Your task to perform on an android device: Search for razer blackwidow on bestbuy, select the first entry, add it to the cart, then select checkout. Image 0: 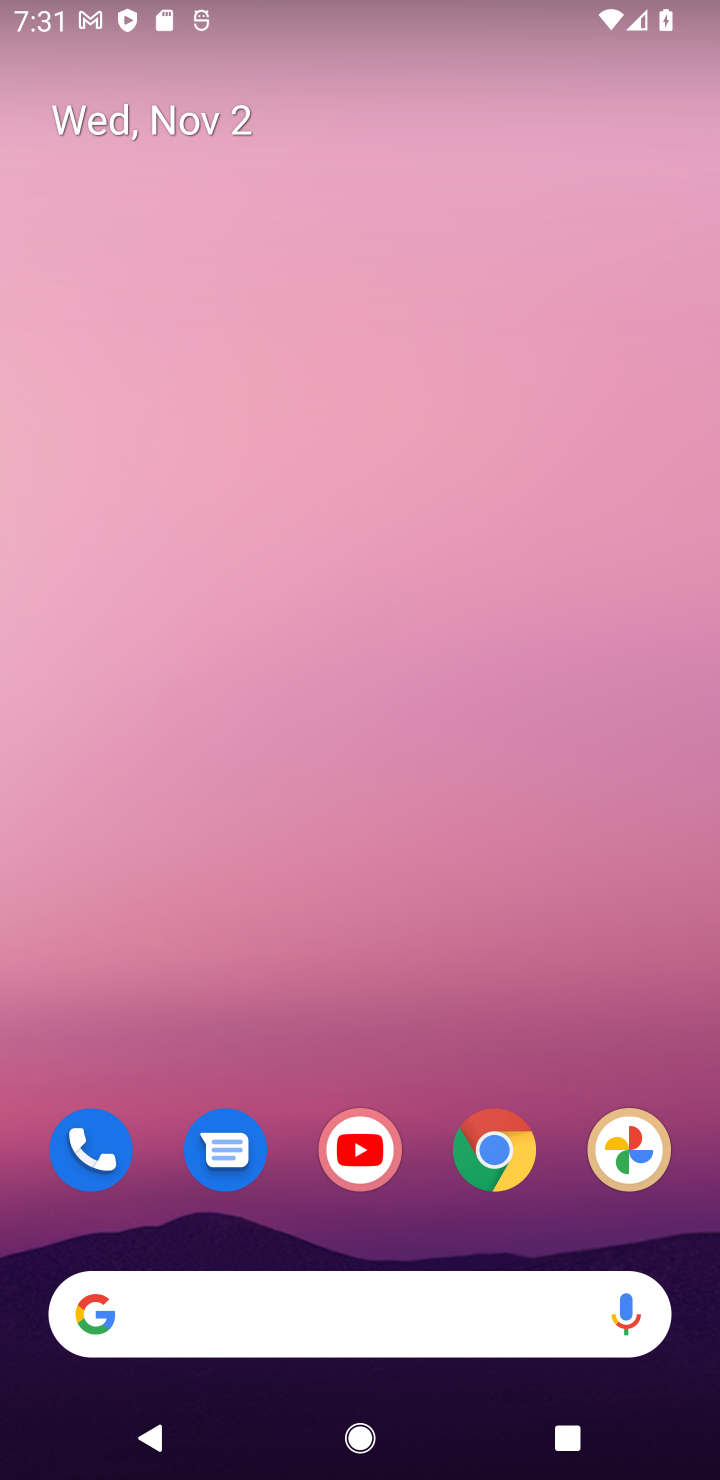
Step 0: click (507, 1167)
Your task to perform on an android device: Search for razer blackwidow on bestbuy, select the first entry, add it to the cart, then select checkout. Image 1: 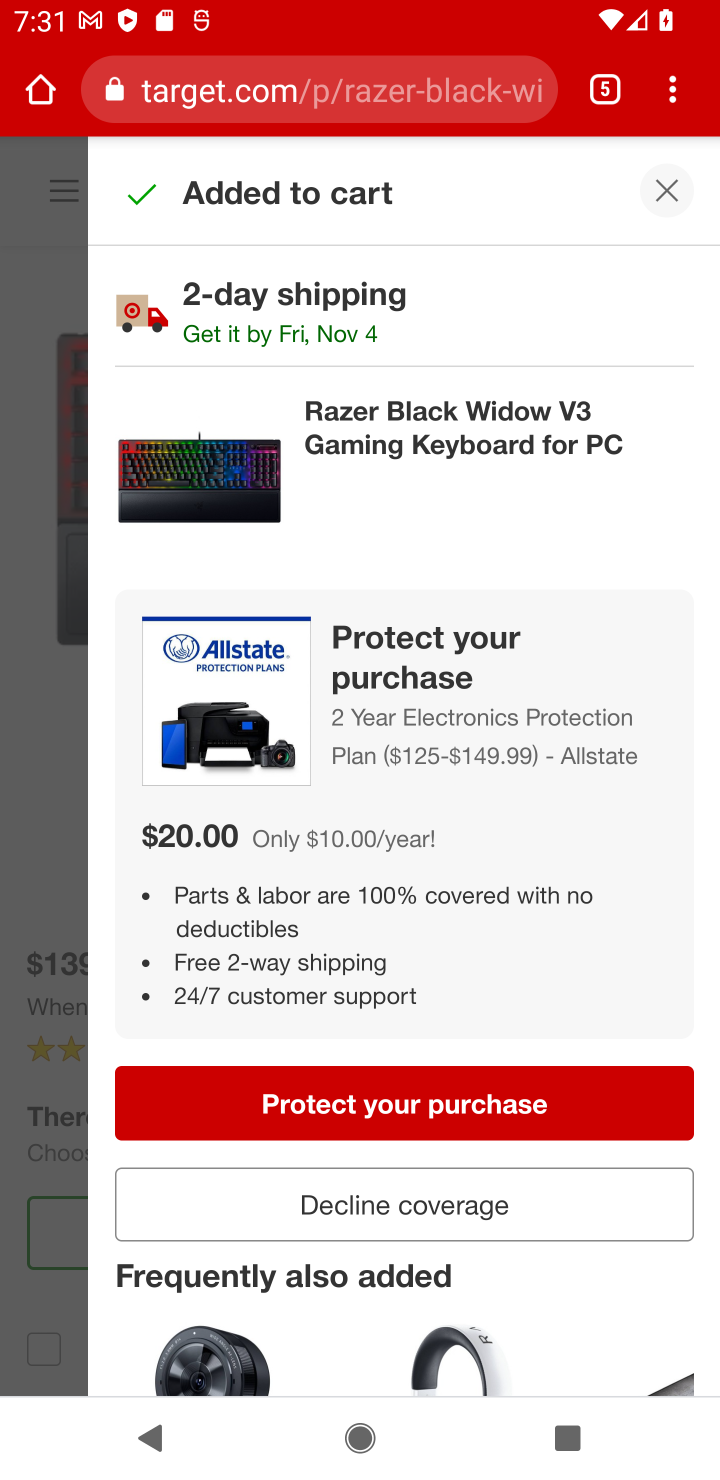
Step 1: click (599, 105)
Your task to perform on an android device: Search for razer blackwidow on bestbuy, select the first entry, add it to the cart, then select checkout. Image 2: 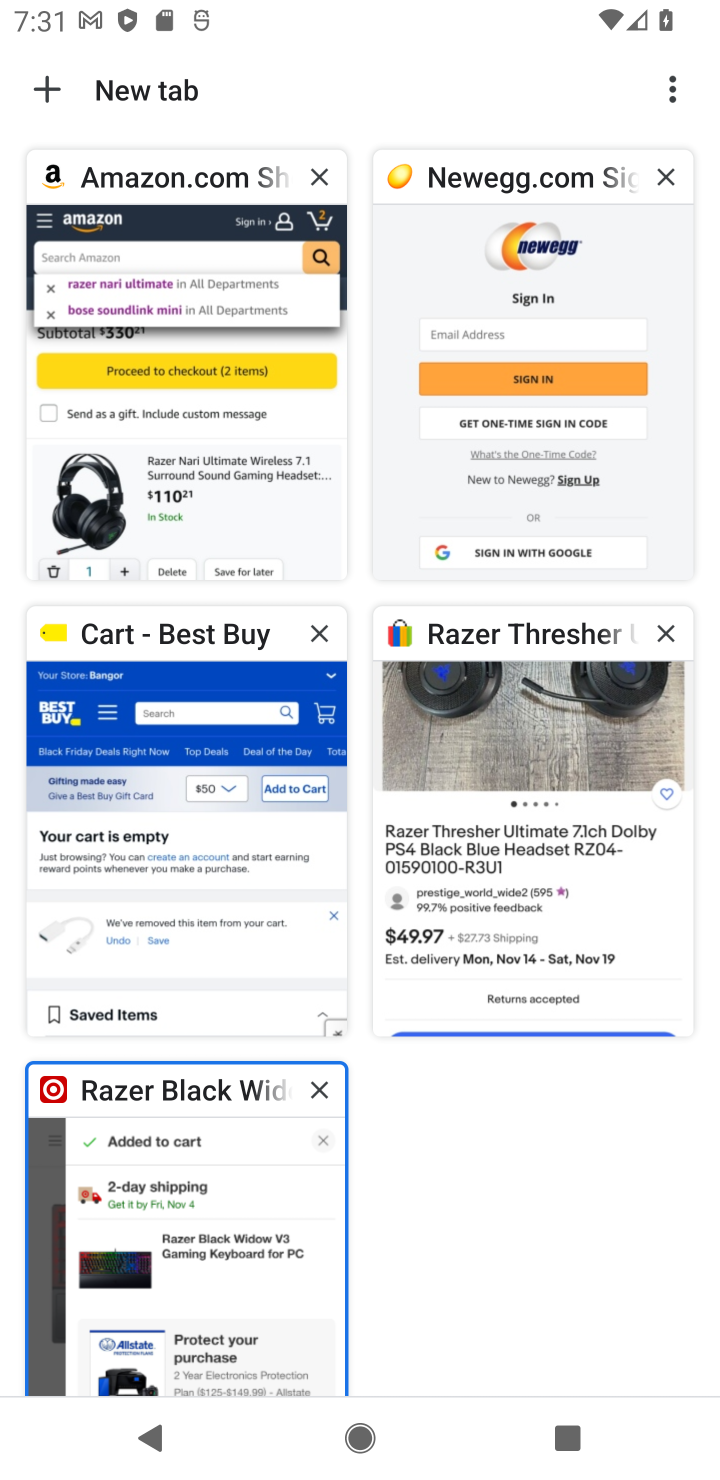
Step 2: click (165, 762)
Your task to perform on an android device: Search for razer blackwidow on bestbuy, select the first entry, add it to the cart, then select checkout. Image 3: 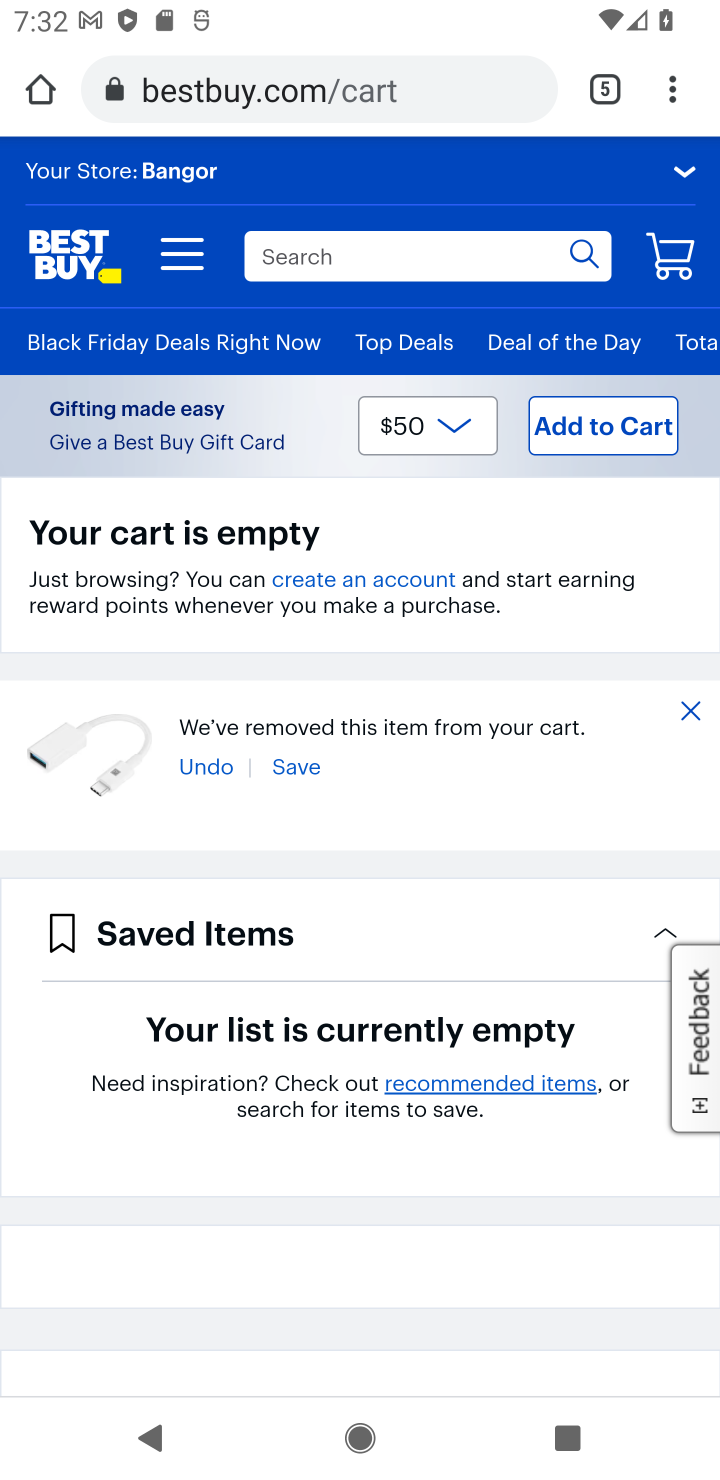
Step 3: click (394, 248)
Your task to perform on an android device: Search for razer blackwidow on bestbuy, select the first entry, add it to the cart, then select checkout. Image 4: 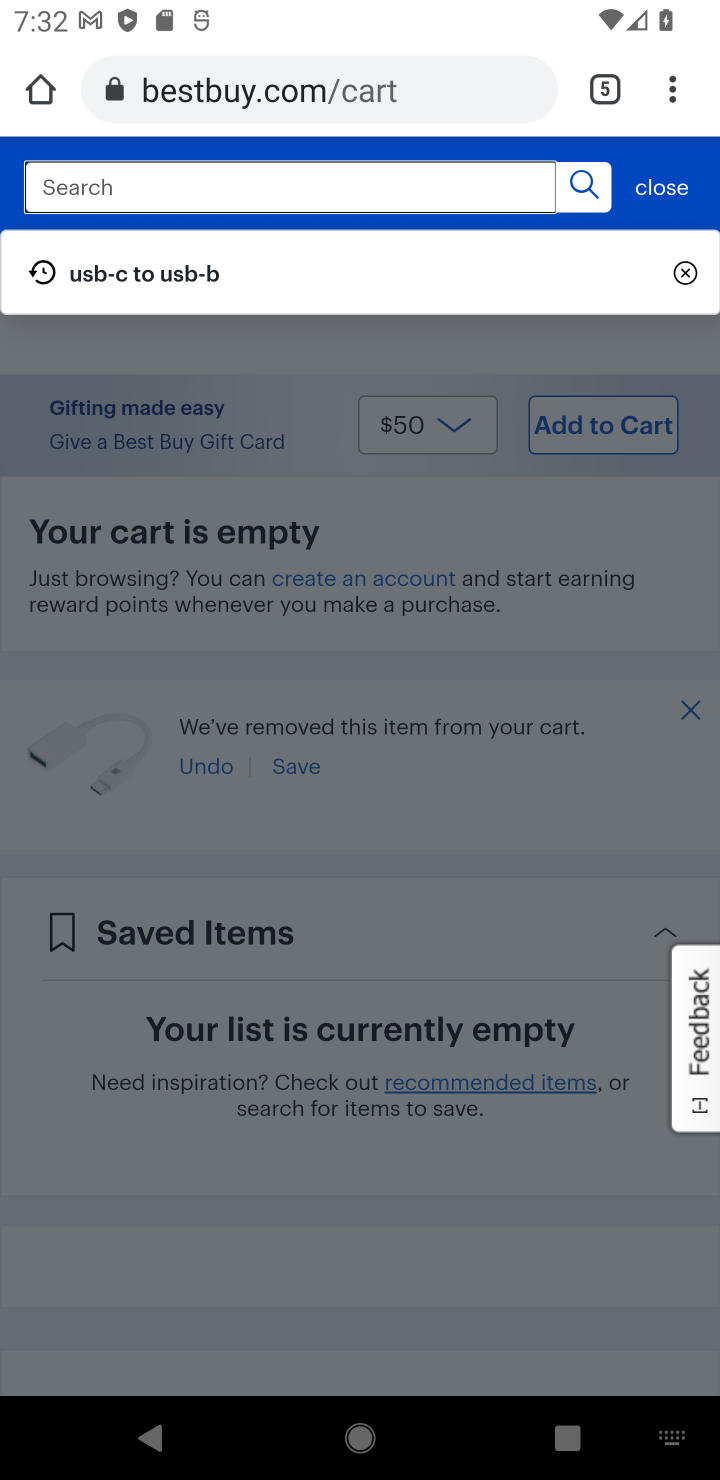
Step 4: type "razer blackwidow"
Your task to perform on an android device: Search for razer blackwidow on bestbuy, select the first entry, add it to the cart, then select checkout. Image 5: 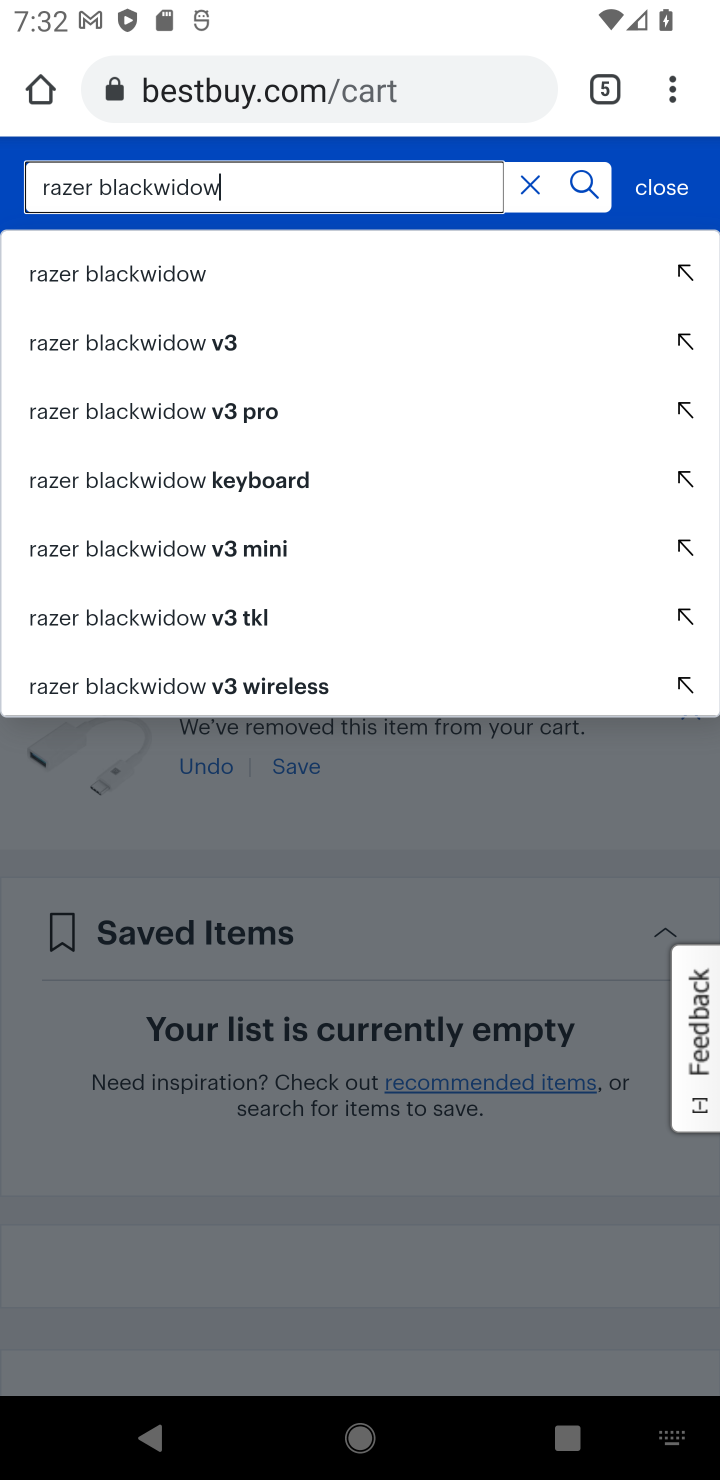
Step 5: click (178, 260)
Your task to perform on an android device: Search for razer blackwidow on bestbuy, select the first entry, add it to the cart, then select checkout. Image 6: 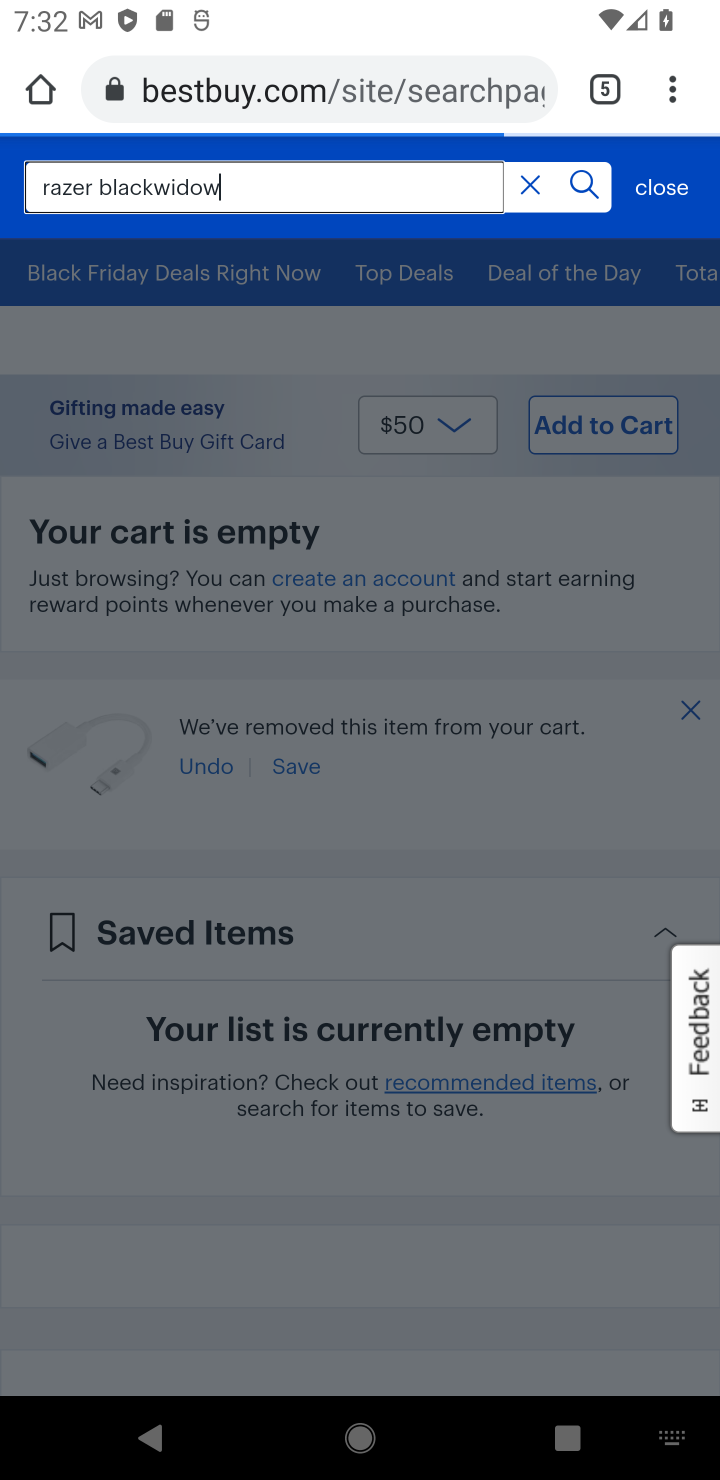
Step 6: click (581, 191)
Your task to perform on an android device: Search for razer blackwidow on bestbuy, select the first entry, add it to the cart, then select checkout. Image 7: 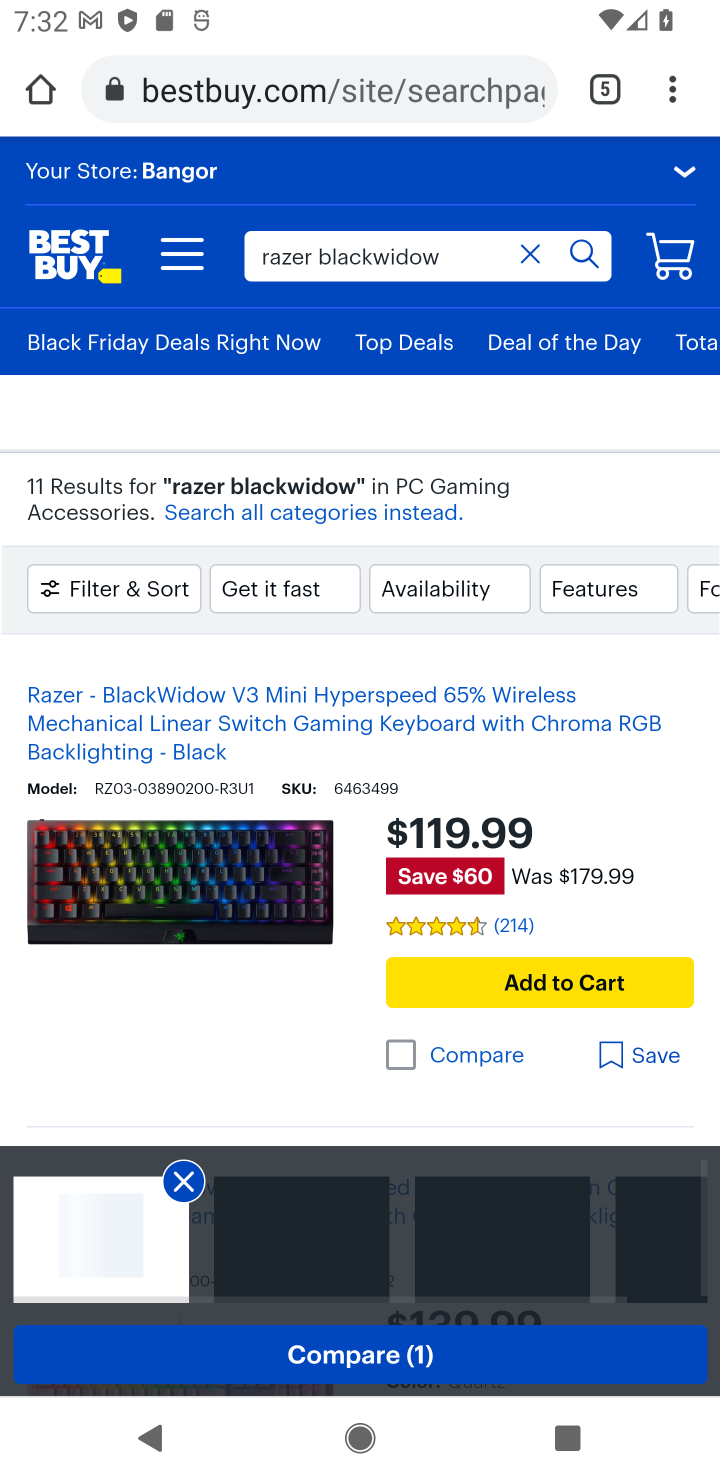
Step 7: click (528, 984)
Your task to perform on an android device: Search for razer blackwidow on bestbuy, select the first entry, add it to the cart, then select checkout. Image 8: 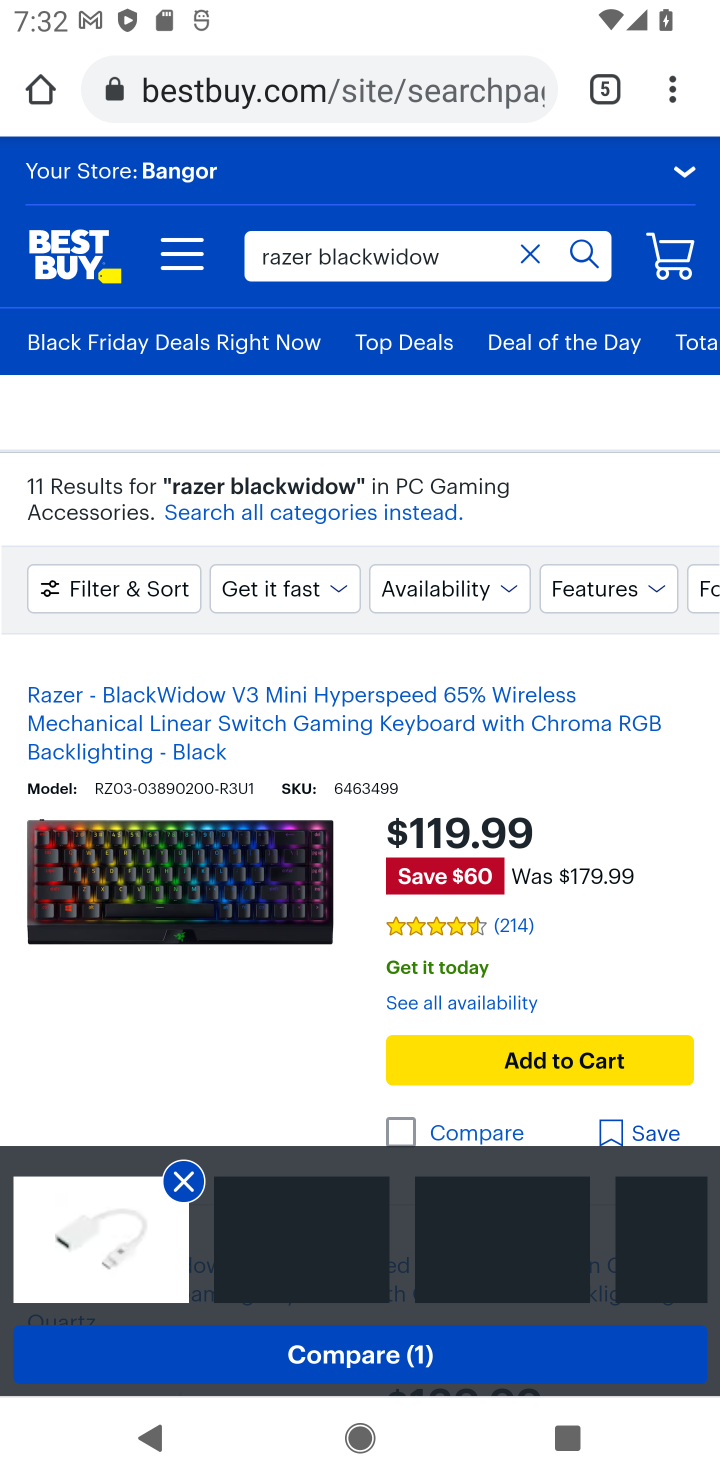
Step 8: click (505, 1054)
Your task to perform on an android device: Search for razer blackwidow on bestbuy, select the first entry, add it to the cart, then select checkout. Image 9: 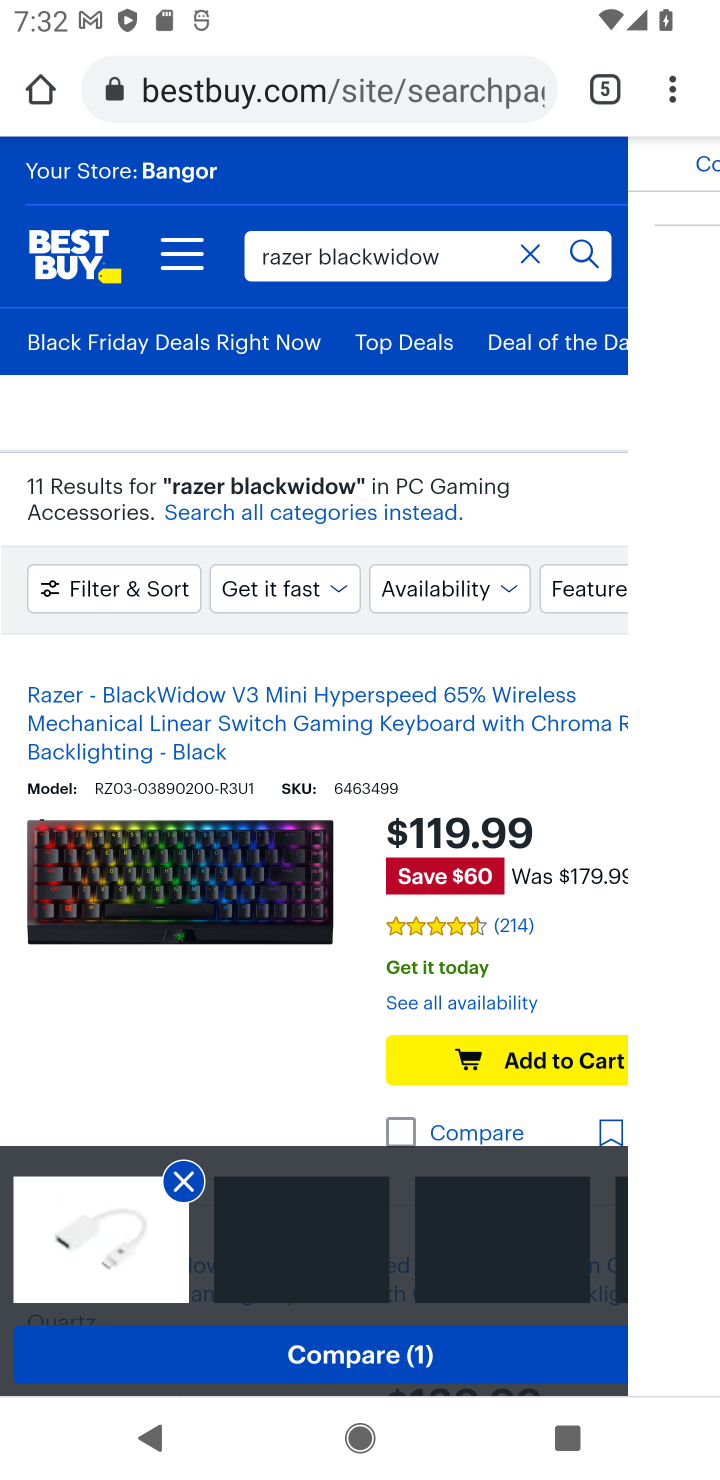
Step 9: click (680, 255)
Your task to perform on an android device: Search for razer blackwidow on bestbuy, select the first entry, add it to the cart, then select checkout. Image 10: 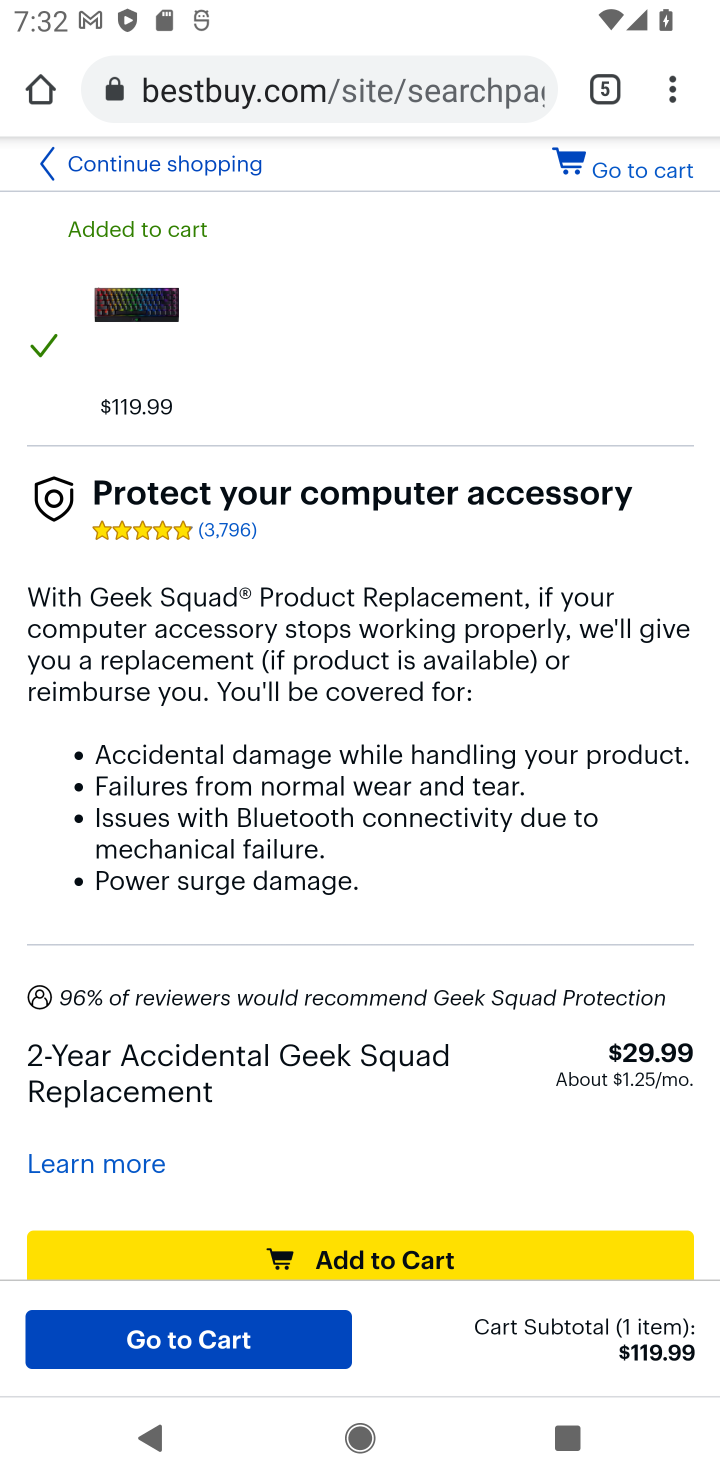
Step 10: click (205, 1356)
Your task to perform on an android device: Search for razer blackwidow on bestbuy, select the first entry, add it to the cart, then select checkout. Image 11: 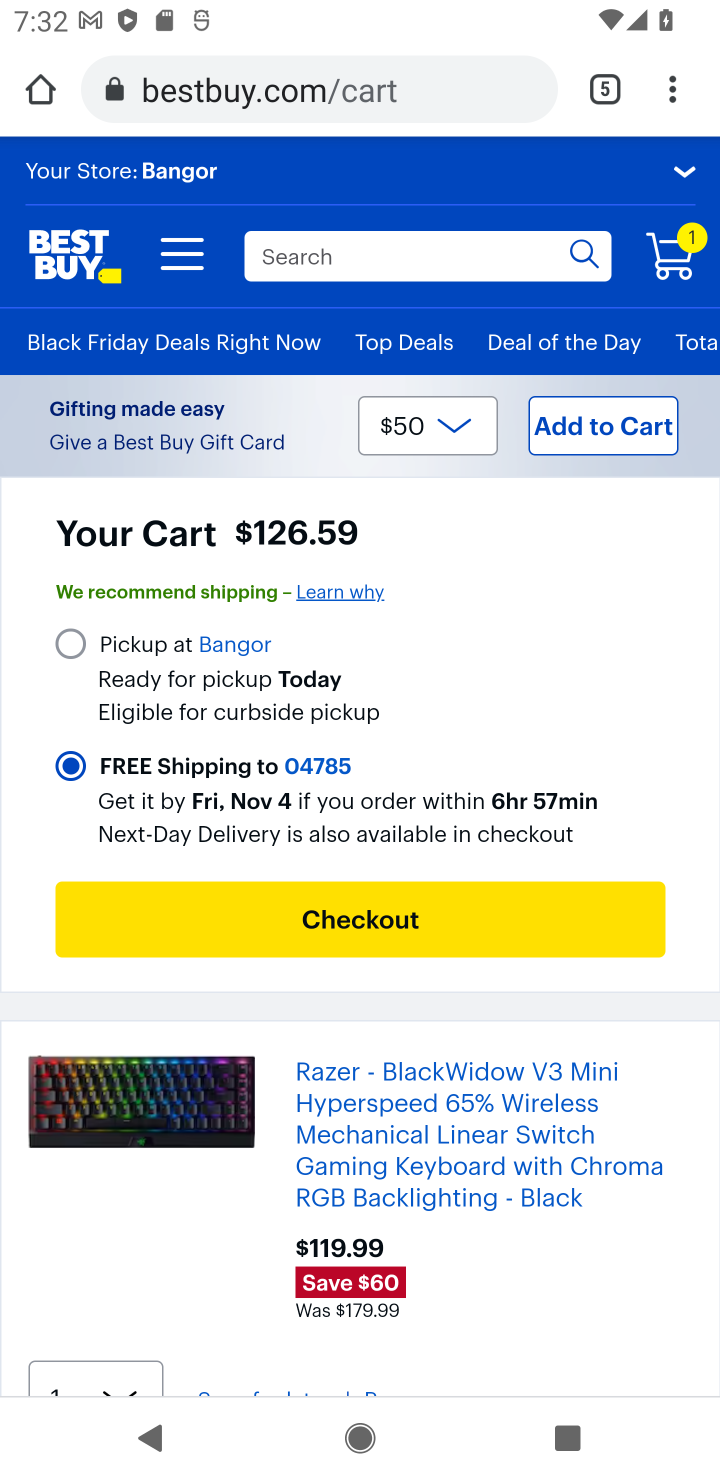
Step 11: click (467, 901)
Your task to perform on an android device: Search for razer blackwidow on bestbuy, select the first entry, add it to the cart, then select checkout. Image 12: 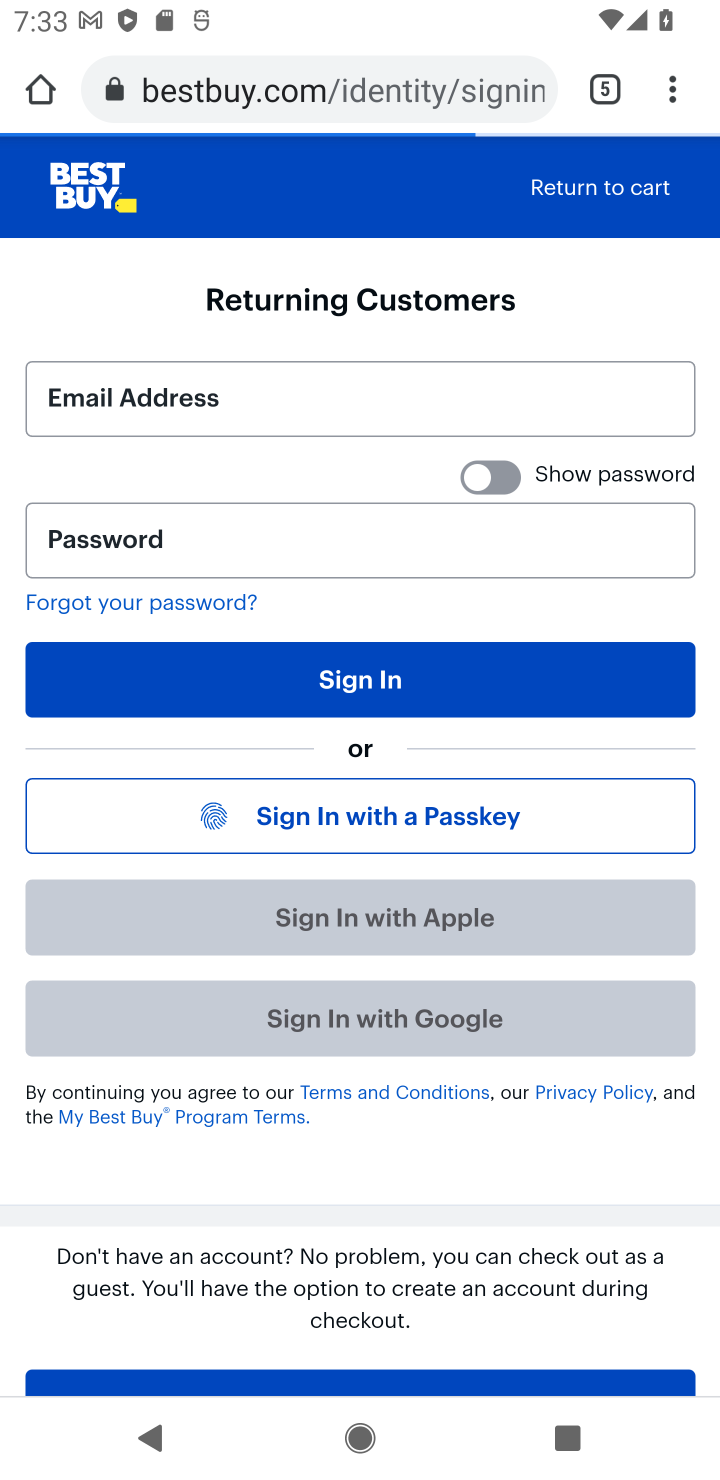
Step 12: task complete